Your task to perform on an android device: Do I have any events tomorrow? Image 0: 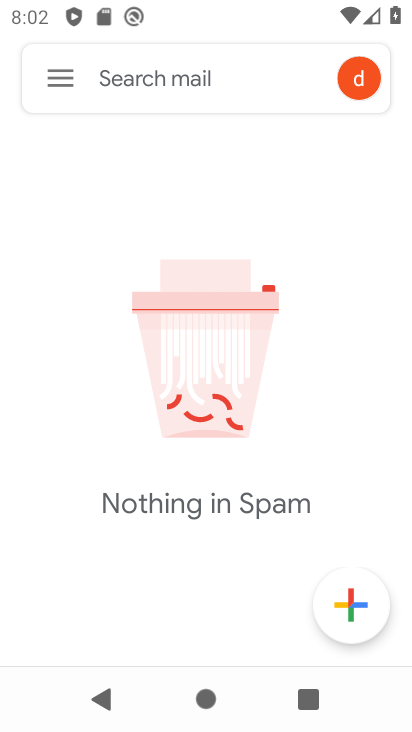
Step 0: press home button
Your task to perform on an android device: Do I have any events tomorrow? Image 1: 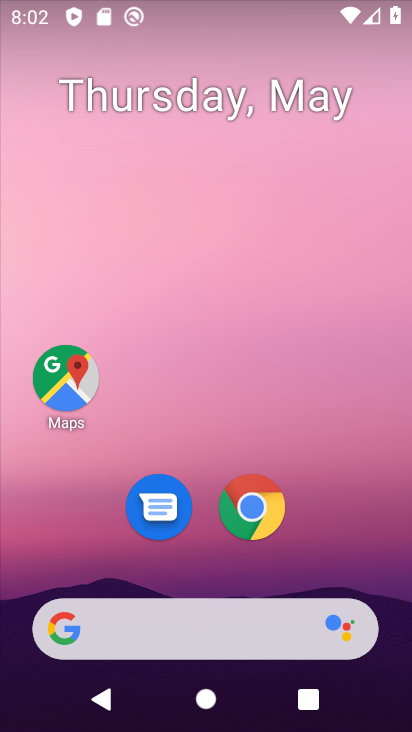
Step 1: drag from (369, 590) to (216, 34)
Your task to perform on an android device: Do I have any events tomorrow? Image 2: 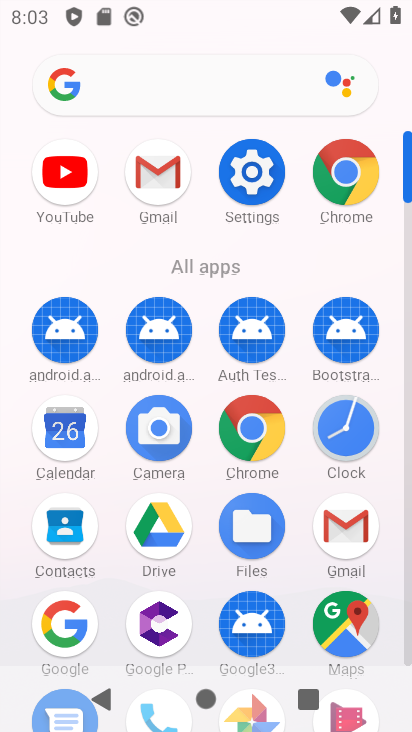
Step 2: click (81, 423)
Your task to perform on an android device: Do I have any events tomorrow? Image 3: 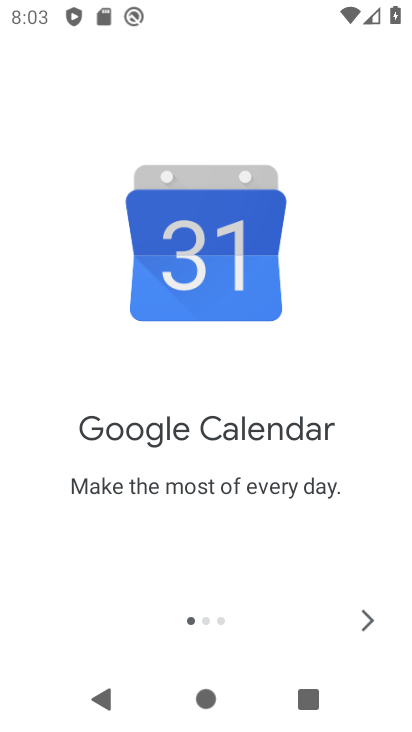
Step 3: click (368, 615)
Your task to perform on an android device: Do I have any events tomorrow? Image 4: 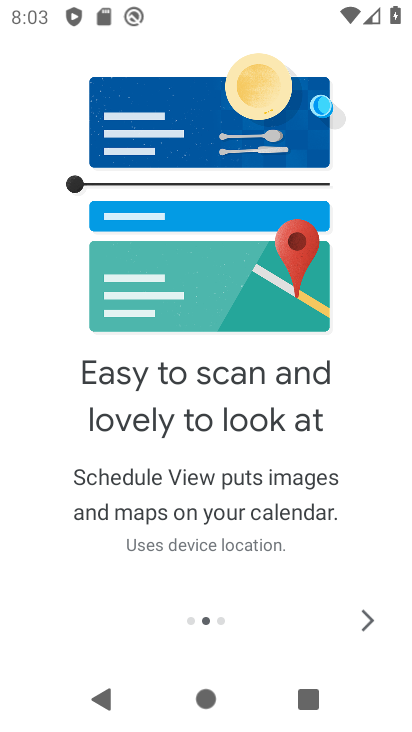
Step 4: click (368, 615)
Your task to perform on an android device: Do I have any events tomorrow? Image 5: 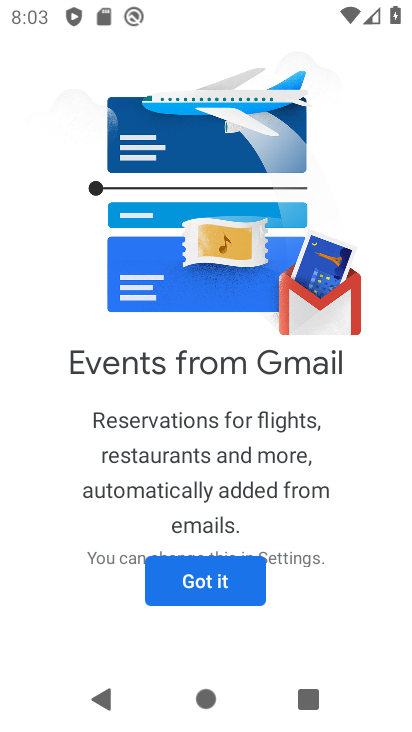
Step 5: click (227, 579)
Your task to perform on an android device: Do I have any events tomorrow? Image 6: 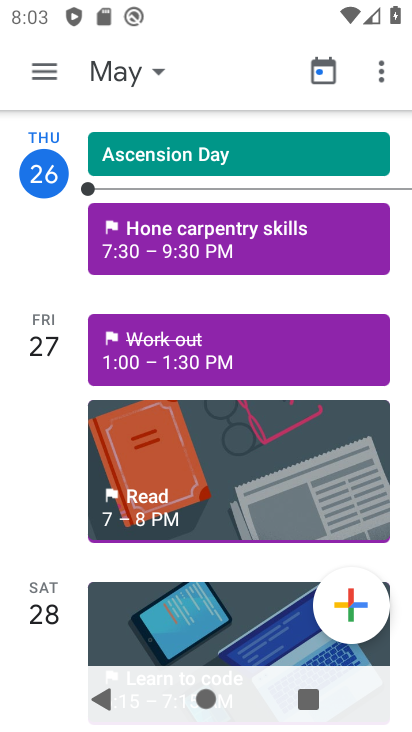
Step 6: click (41, 62)
Your task to perform on an android device: Do I have any events tomorrow? Image 7: 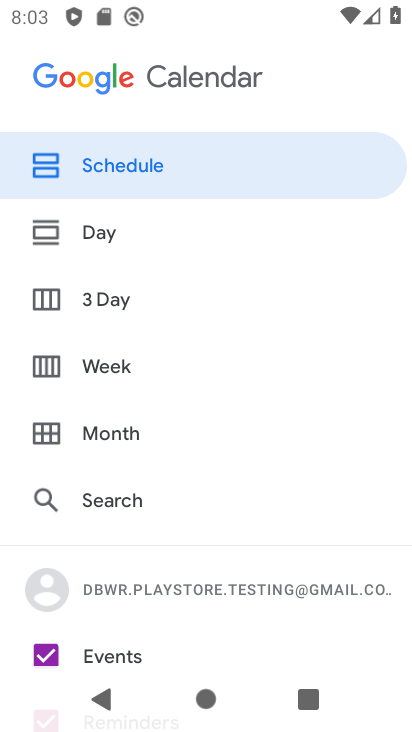
Step 7: drag from (135, 612) to (72, 242)
Your task to perform on an android device: Do I have any events tomorrow? Image 8: 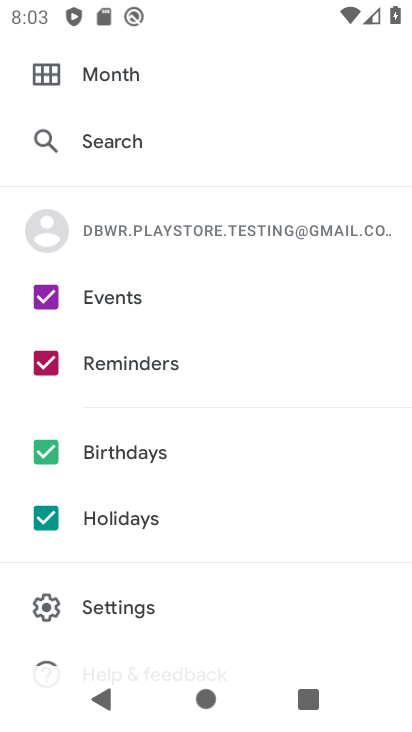
Step 8: click (43, 520)
Your task to perform on an android device: Do I have any events tomorrow? Image 9: 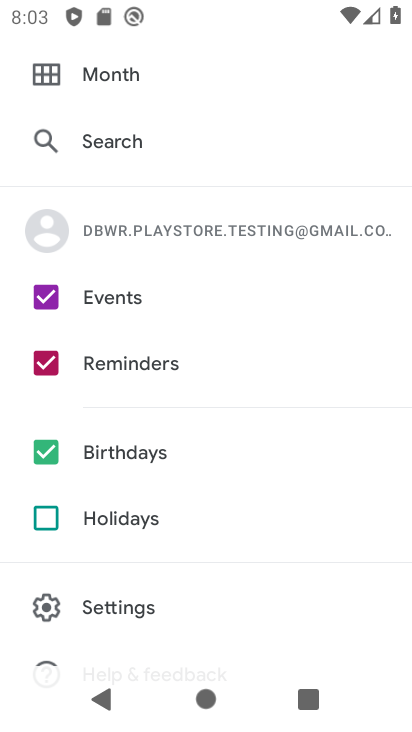
Step 9: click (40, 448)
Your task to perform on an android device: Do I have any events tomorrow? Image 10: 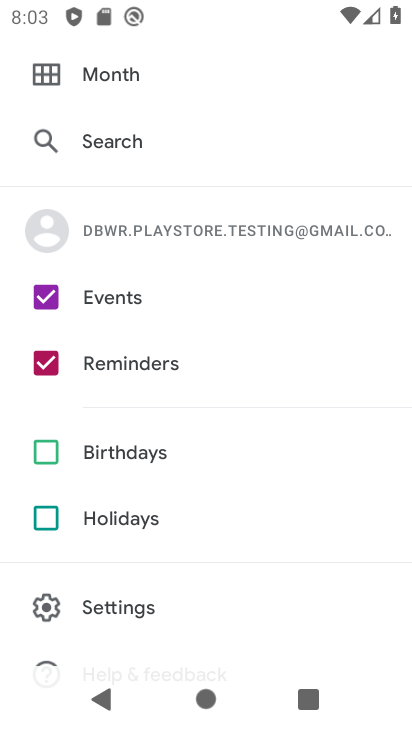
Step 10: click (43, 357)
Your task to perform on an android device: Do I have any events tomorrow? Image 11: 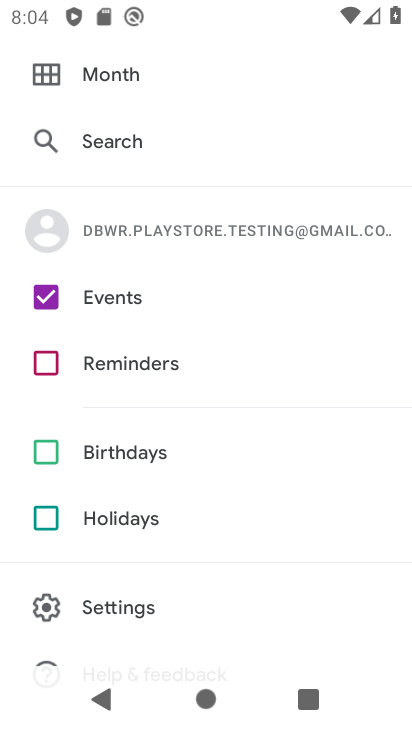
Step 11: drag from (222, 105) to (249, 506)
Your task to perform on an android device: Do I have any events tomorrow? Image 12: 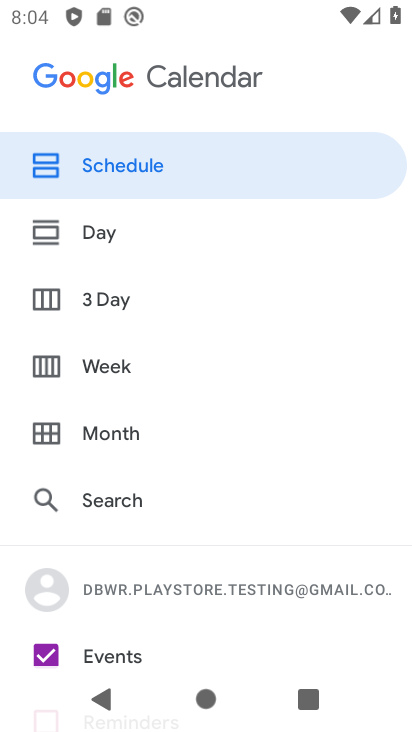
Step 12: click (134, 228)
Your task to perform on an android device: Do I have any events tomorrow? Image 13: 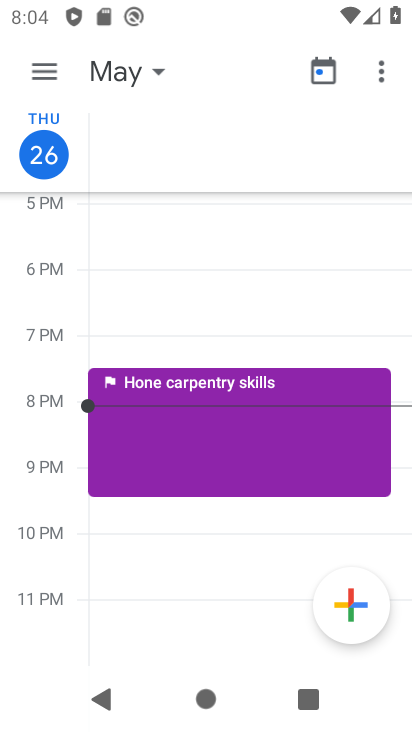
Step 13: click (126, 58)
Your task to perform on an android device: Do I have any events tomorrow? Image 14: 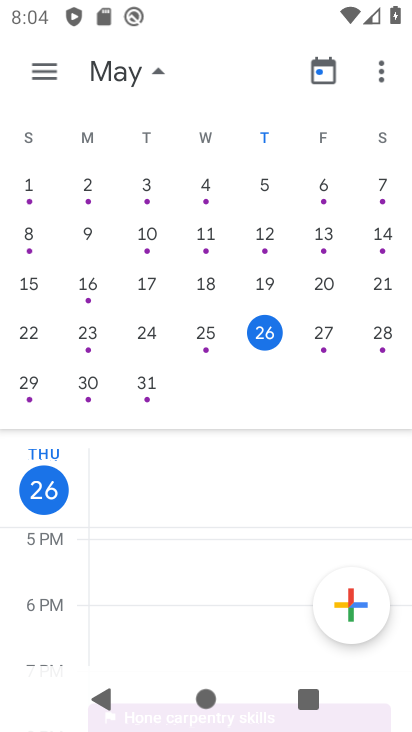
Step 14: click (393, 334)
Your task to perform on an android device: Do I have any events tomorrow? Image 15: 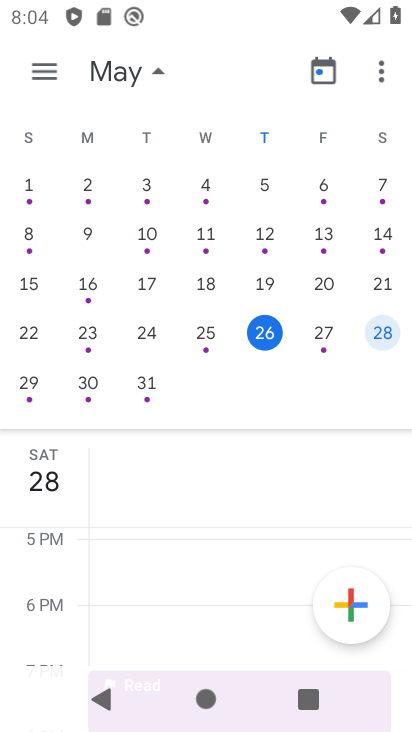
Step 15: click (146, 65)
Your task to perform on an android device: Do I have any events tomorrow? Image 16: 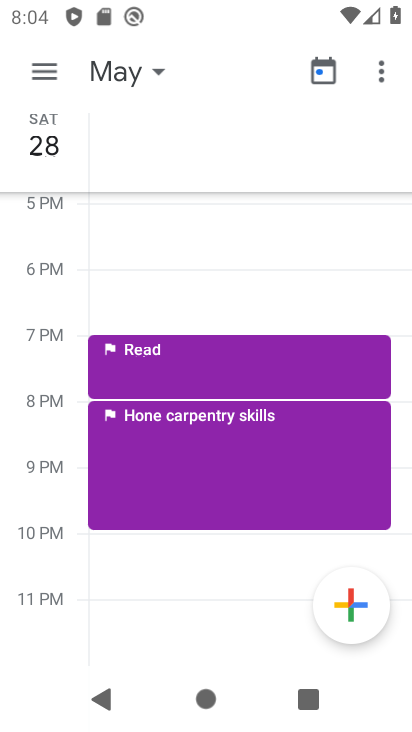
Step 16: task complete